Your task to perform on an android device: What time is it in Beijing? Image 0: 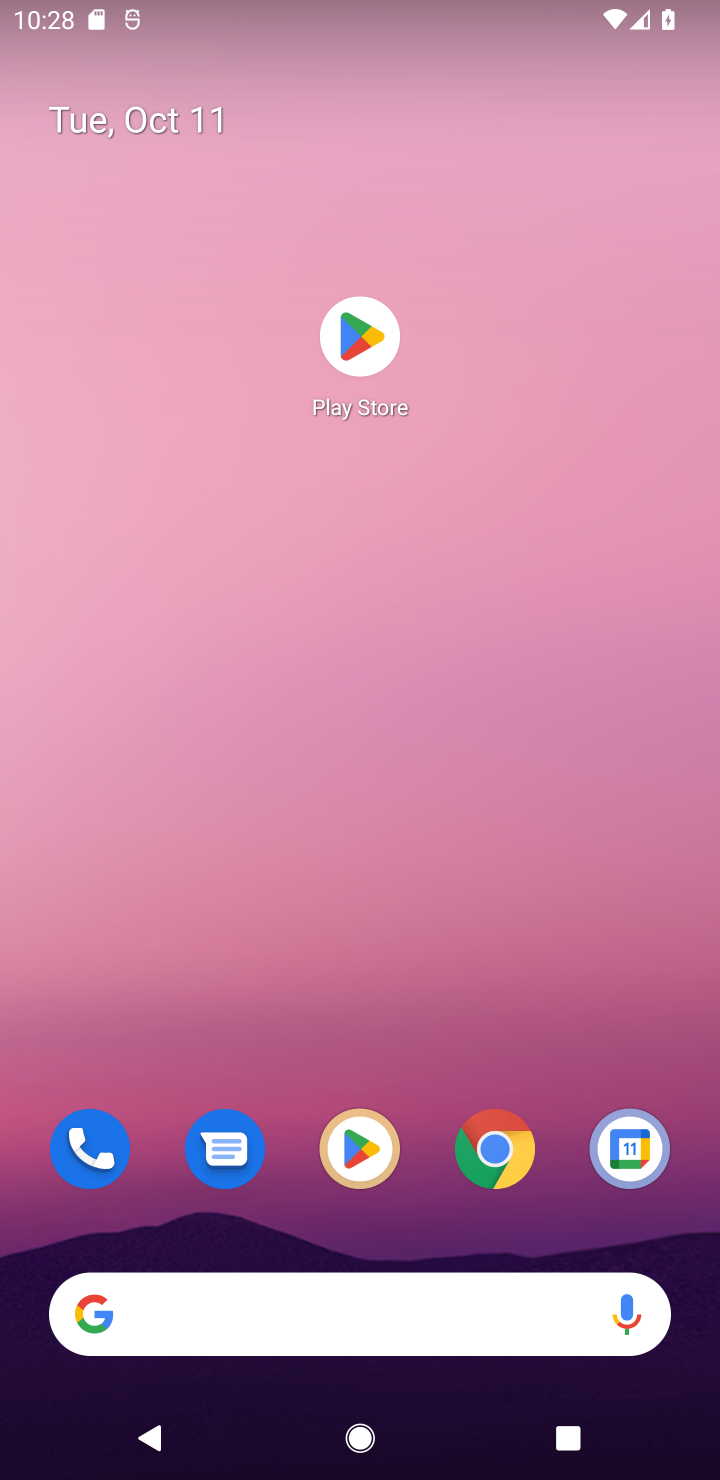
Step 0: click (357, 1323)
Your task to perform on an android device: What time is it in Beijing? Image 1: 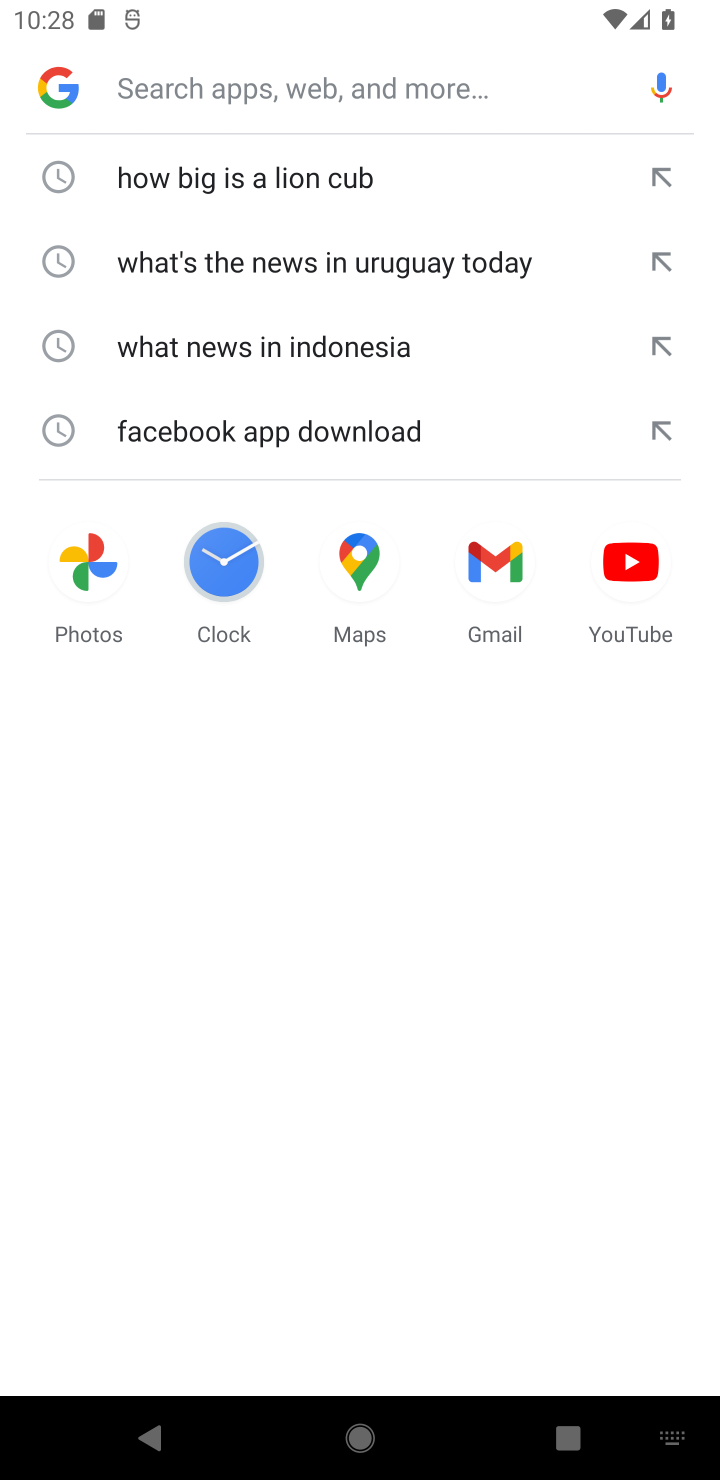
Step 1: type "What time is it in Beijing?"
Your task to perform on an android device: What time is it in Beijing? Image 2: 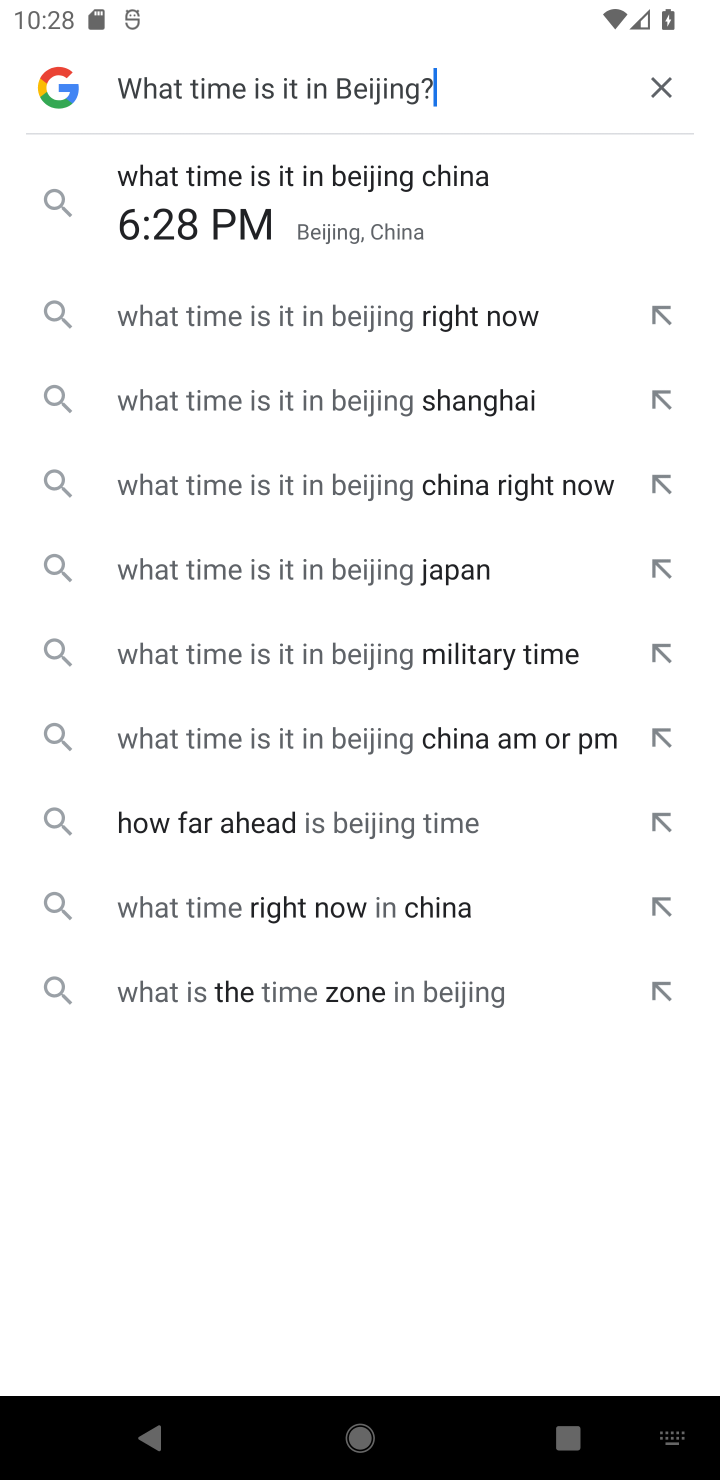
Step 2: task complete